Your task to perform on an android device: When is my next meeting? Image 0: 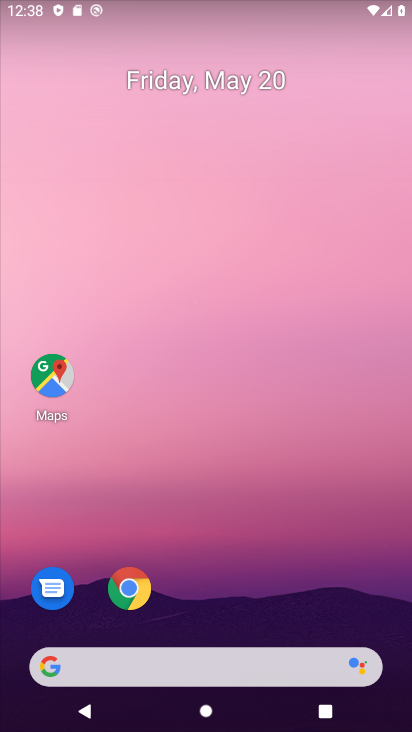
Step 0: drag from (180, 628) to (175, 53)
Your task to perform on an android device: When is my next meeting? Image 1: 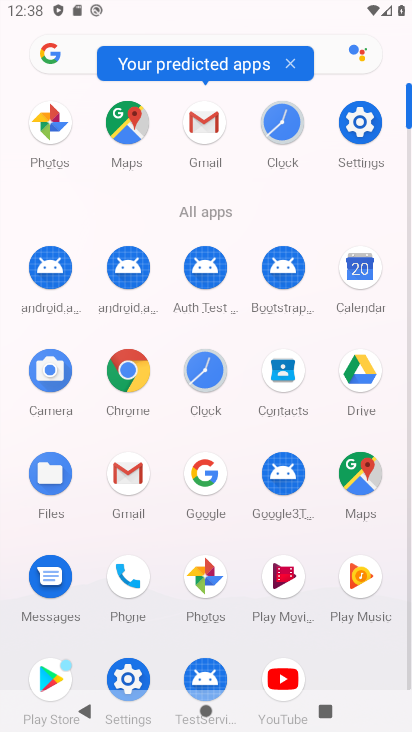
Step 1: click (359, 261)
Your task to perform on an android device: When is my next meeting? Image 2: 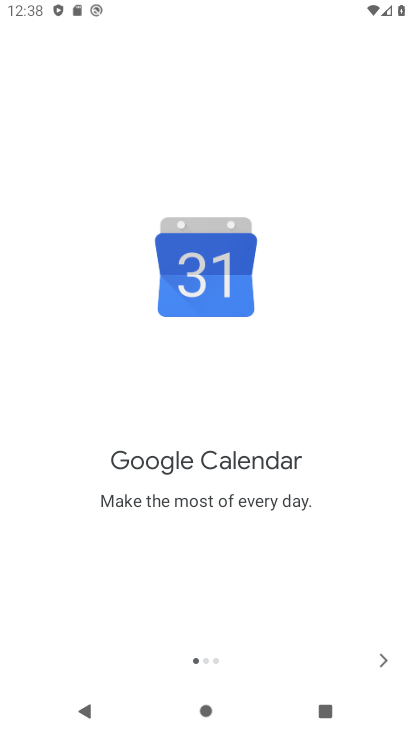
Step 2: click (383, 657)
Your task to perform on an android device: When is my next meeting? Image 3: 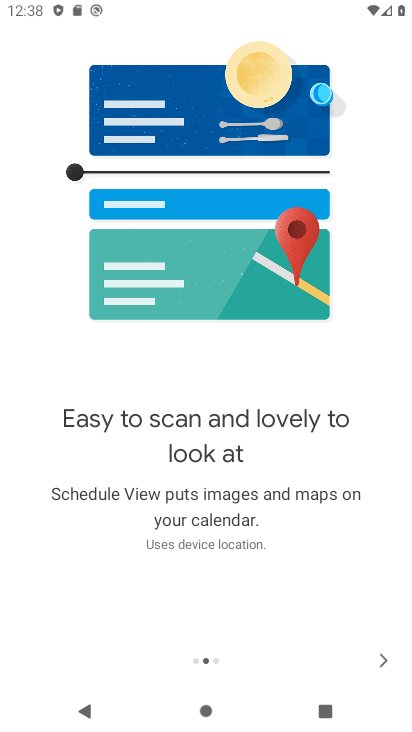
Step 3: click (383, 657)
Your task to perform on an android device: When is my next meeting? Image 4: 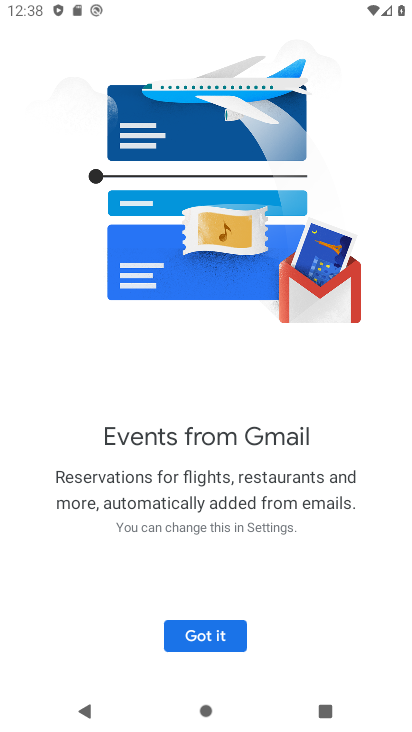
Step 4: click (177, 633)
Your task to perform on an android device: When is my next meeting? Image 5: 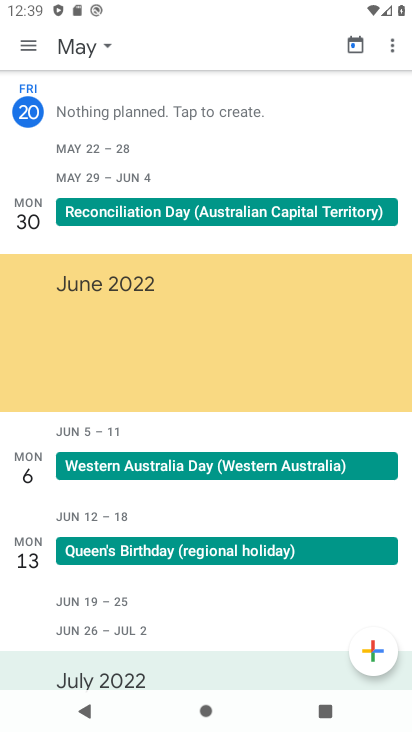
Step 5: click (90, 48)
Your task to perform on an android device: When is my next meeting? Image 6: 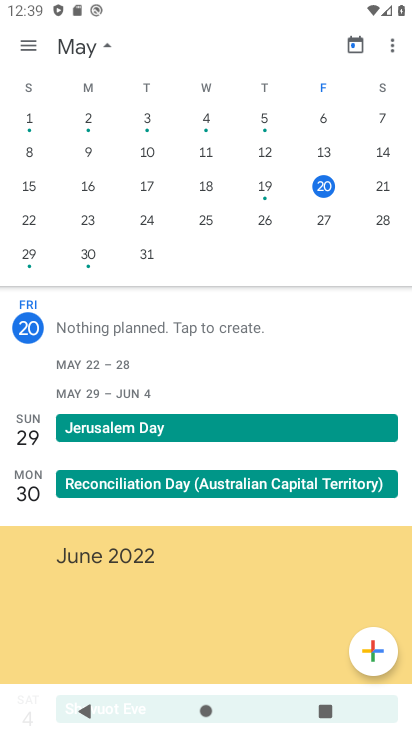
Step 6: task complete